Your task to perform on an android device: Open privacy settings Image 0: 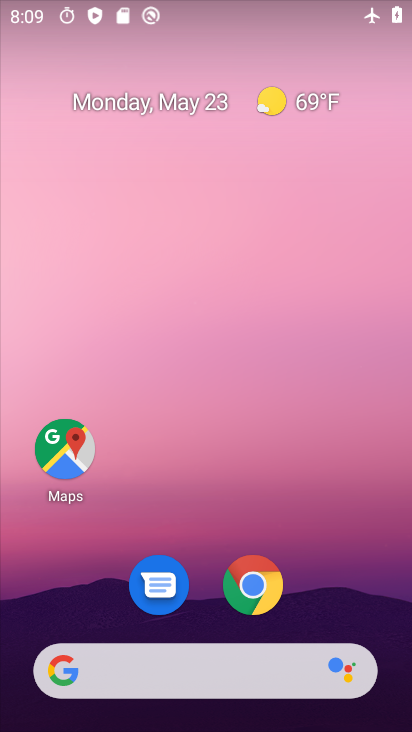
Step 0: drag from (223, 512) to (217, 45)
Your task to perform on an android device: Open privacy settings Image 1: 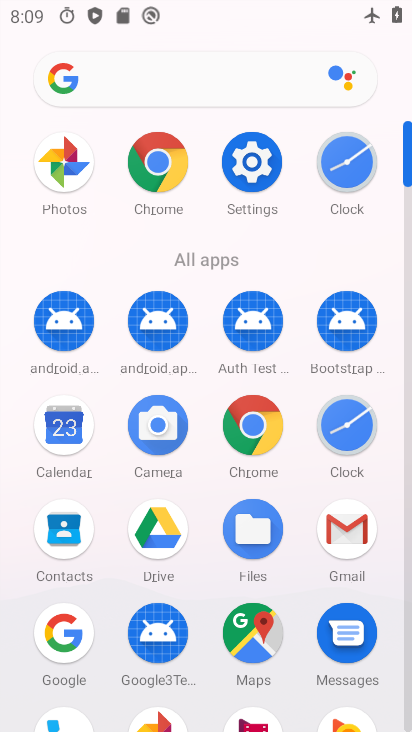
Step 1: click (246, 161)
Your task to perform on an android device: Open privacy settings Image 2: 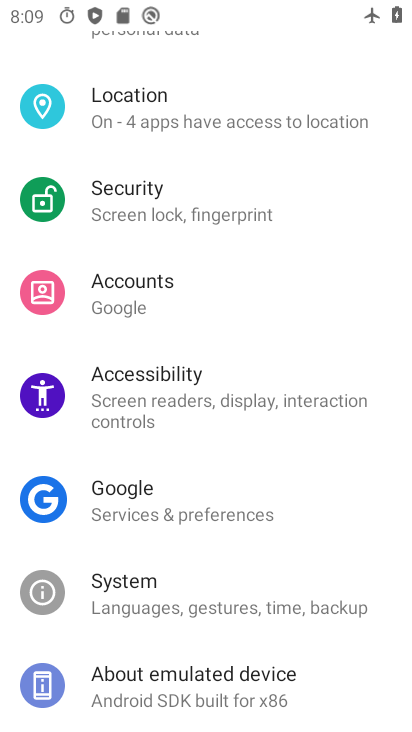
Step 2: drag from (227, 273) to (201, 641)
Your task to perform on an android device: Open privacy settings Image 3: 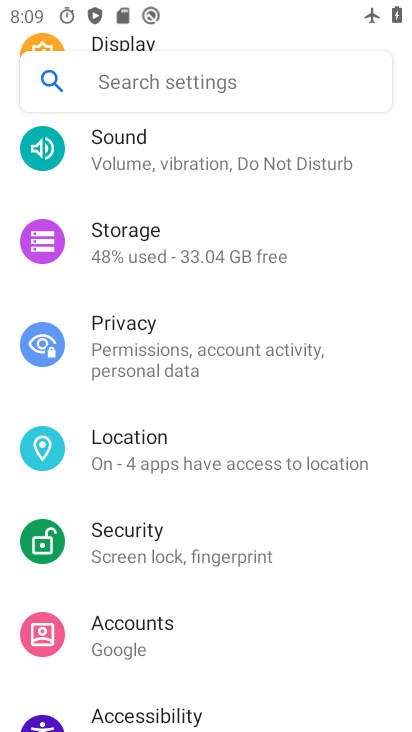
Step 3: click (210, 349)
Your task to perform on an android device: Open privacy settings Image 4: 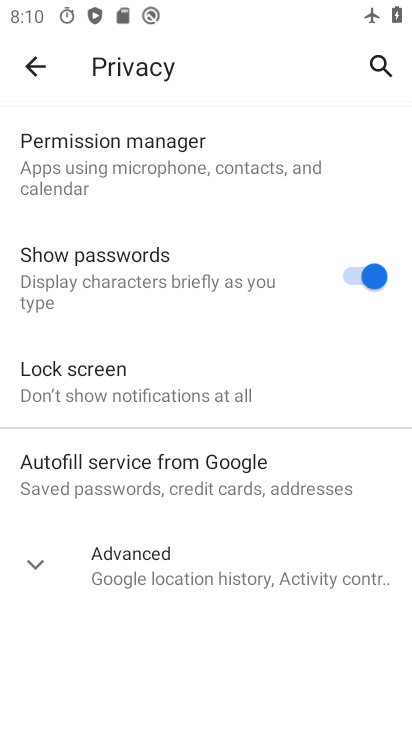
Step 4: click (29, 555)
Your task to perform on an android device: Open privacy settings Image 5: 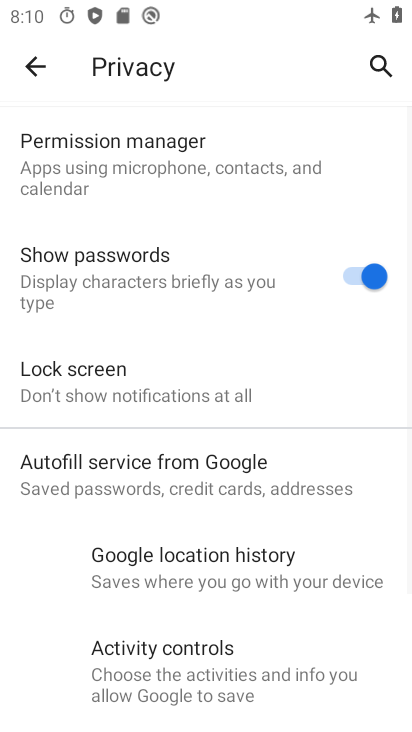
Step 5: task complete